Your task to perform on an android device: Open the stopwatch Image 0: 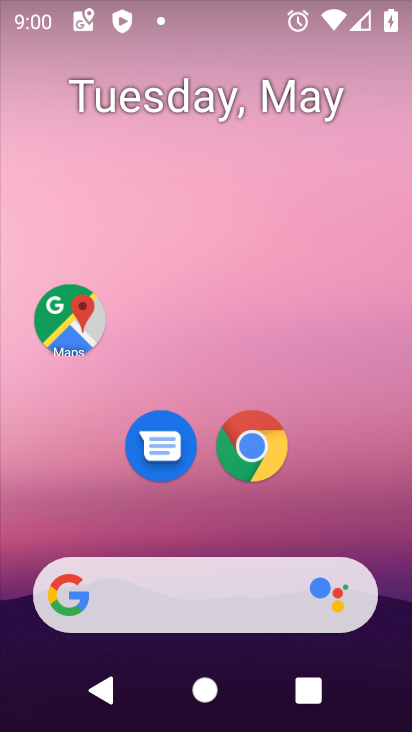
Step 0: drag from (328, 525) to (334, 6)
Your task to perform on an android device: Open the stopwatch Image 1: 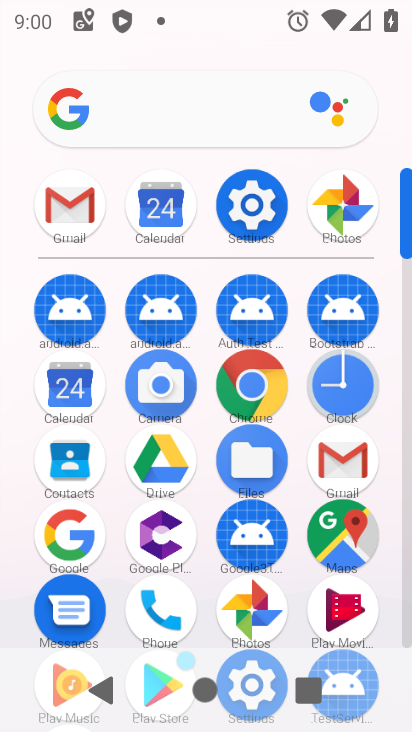
Step 1: click (364, 381)
Your task to perform on an android device: Open the stopwatch Image 2: 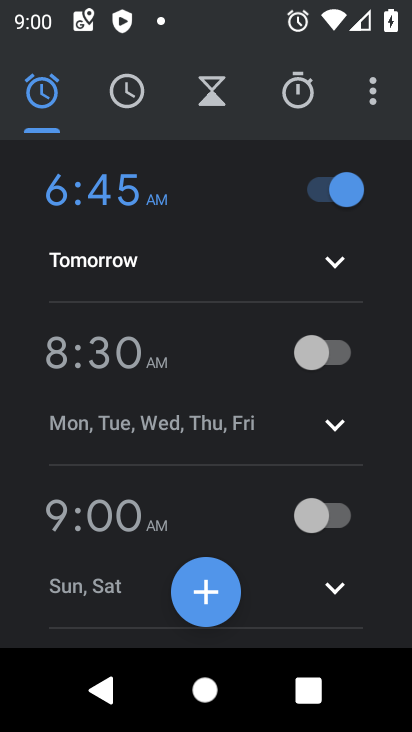
Step 2: click (295, 97)
Your task to perform on an android device: Open the stopwatch Image 3: 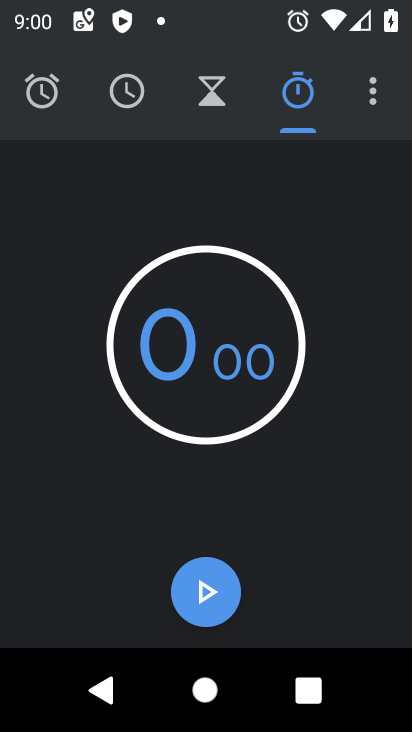
Step 3: task complete